Your task to perform on an android device: change notification settings in the gmail app Image 0: 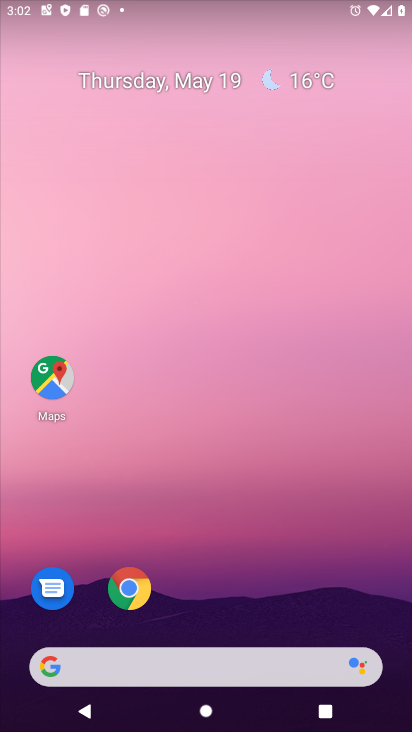
Step 0: drag from (191, 555) to (203, 69)
Your task to perform on an android device: change notification settings in the gmail app Image 1: 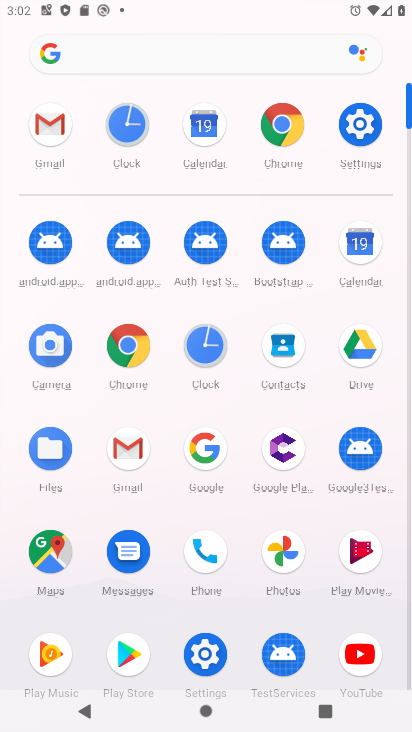
Step 1: click (56, 121)
Your task to perform on an android device: change notification settings in the gmail app Image 2: 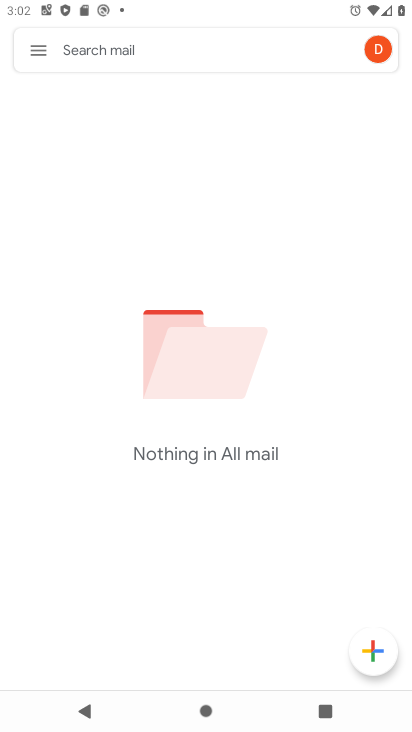
Step 2: click (27, 53)
Your task to perform on an android device: change notification settings in the gmail app Image 3: 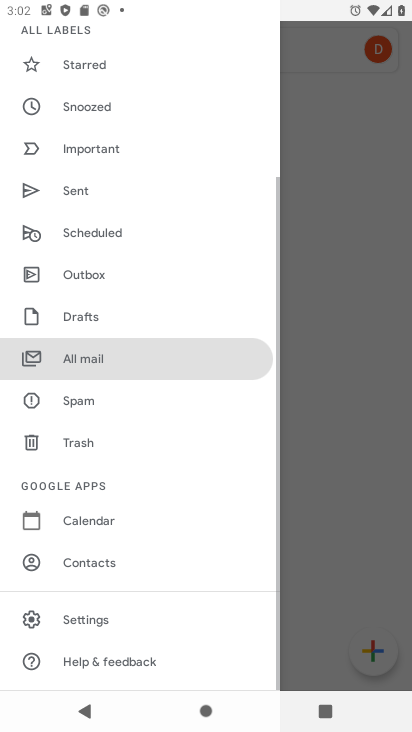
Step 3: click (87, 617)
Your task to perform on an android device: change notification settings in the gmail app Image 4: 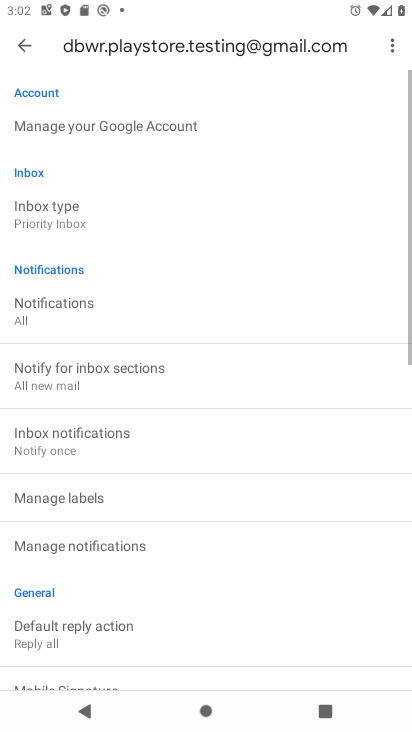
Step 4: drag from (139, 564) to (214, 144)
Your task to perform on an android device: change notification settings in the gmail app Image 5: 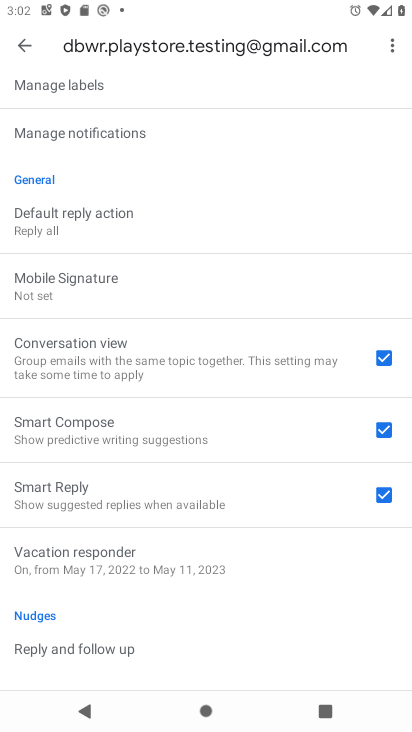
Step 5: drag from (159, 618) to (255, 240)
Your task to perform on an android device: change notification settings in the gmail app Image 6: 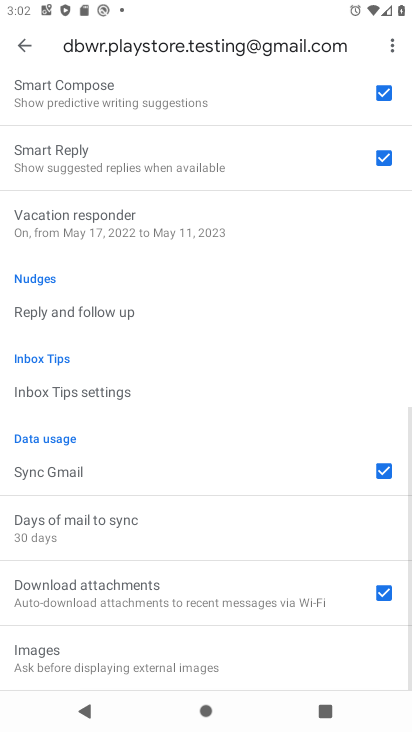
Step 6: drag from (241, 180) to (204, 675)
Your task to perform on an android device: change notification settings in the gmail app Image 7: 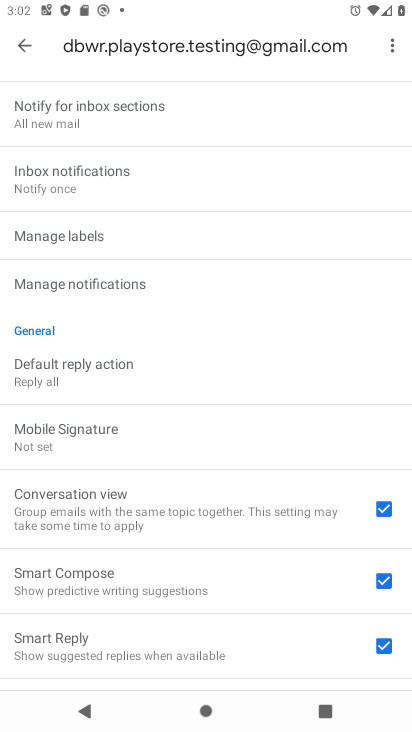
Step 7: drag from (212, 302) to (198, 673)
Your task to perform on an android device: change notification settings in the gmail app Image 8: 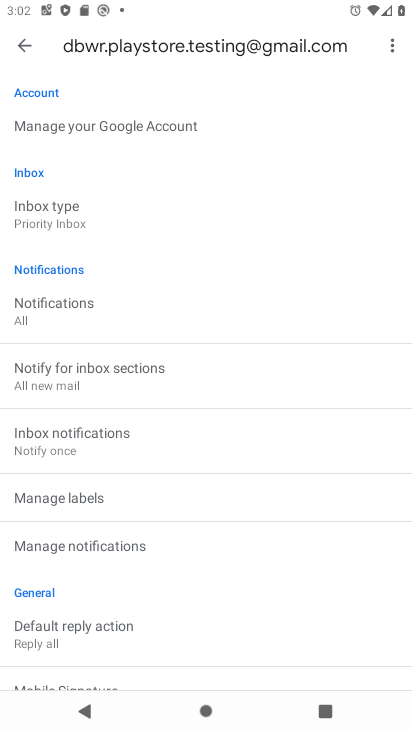
Step 8: click (105, 554)
Your task to perform on an android device: change notification settings in the gmail app Image 9: 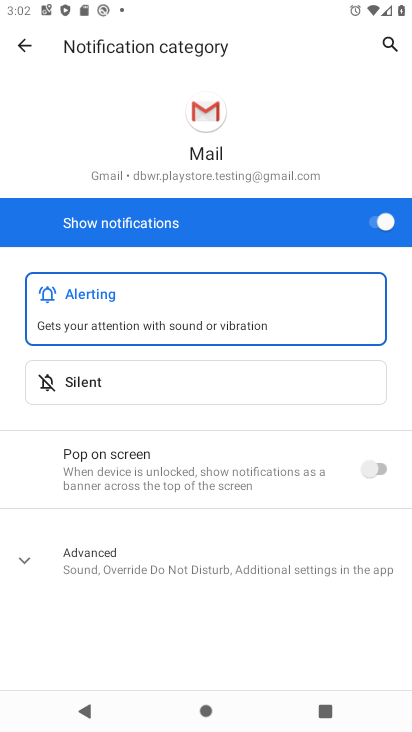
Step 9: click (376, 231)
Your task to perform on an android device: change notification settings in the gmail app Image 10: 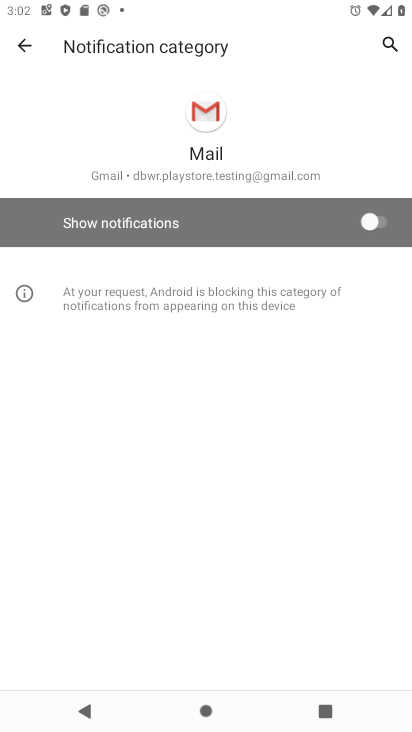
Step 10: task complete